Your task to perform on an android device: Open Google Maps Image 0: 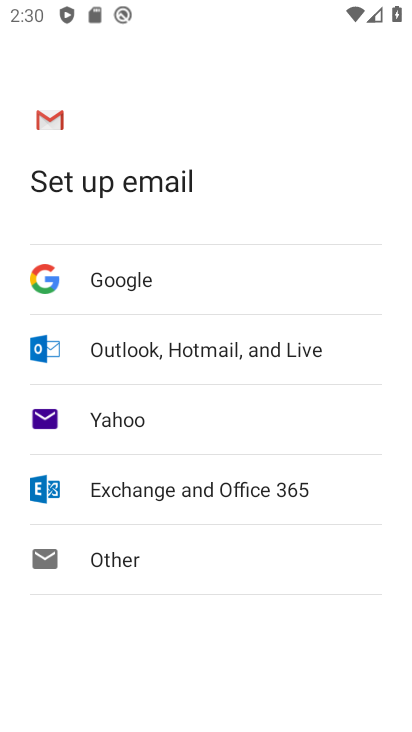
Step 0: press home button
Your task to perform on an android device: Open Google Maps Image 1: 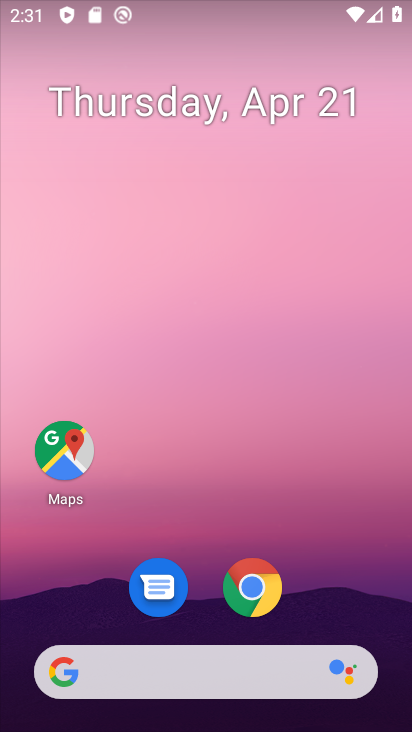
Step 1: drag from (243, 702) to (285, 268)
Your task to perform on an android device: Open Google Maps Image 2: 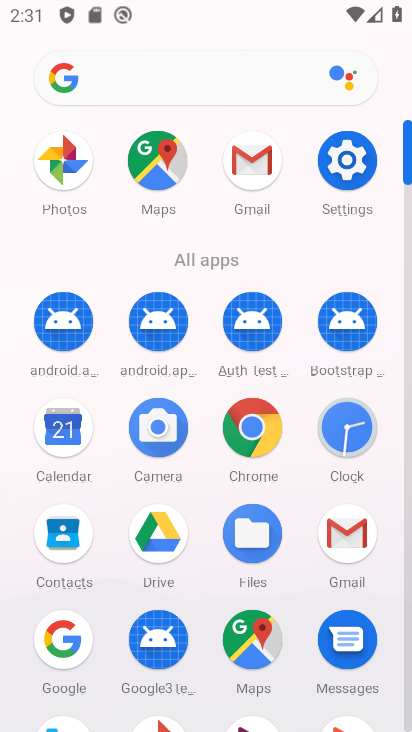
Step 2: click (259, 641)
Your task to perform on an android device: Open Google Maps Image 3: 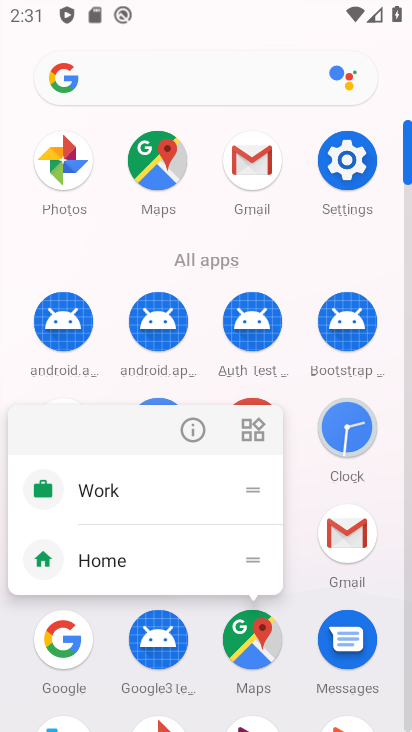
Step 3: click (279, 638)
Your task to perform on an android device: Open Google Maps Image 4: 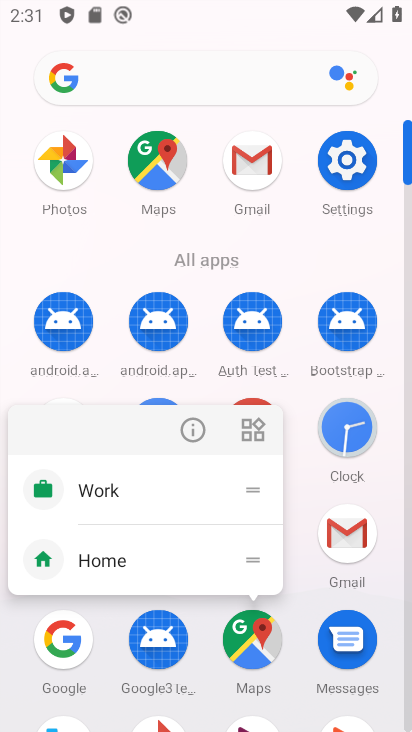
Step 4: click (250, 619)
Your task to perform on an android device: Open Google Maps Image 5: 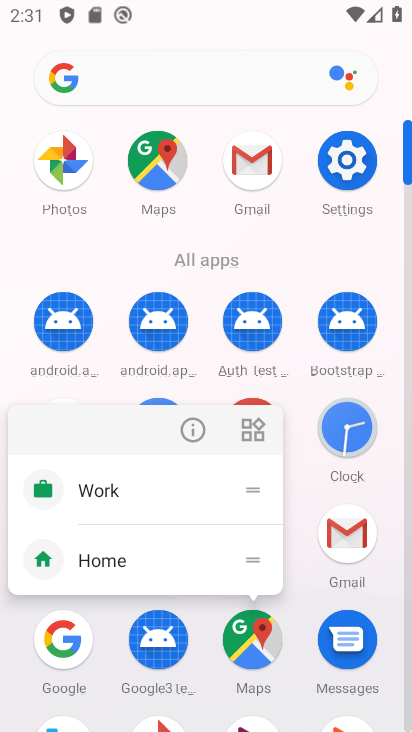
Step 5: click (260, 624)
Your task to perform on an android device: Open Google Maps Image 6: 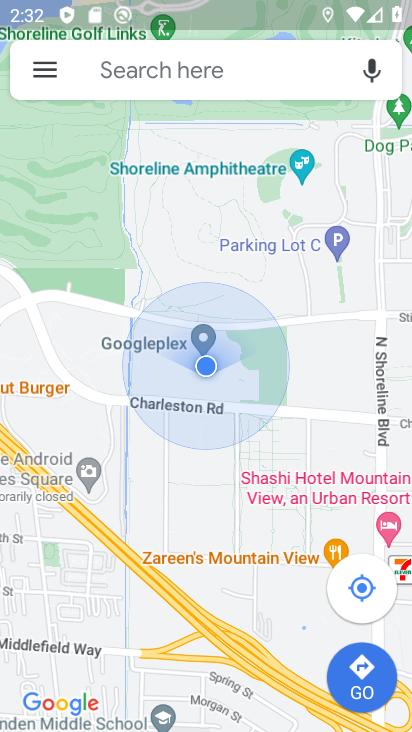
Step 6: task complete